Your task to perform on an android device: read, delete, or share a saved page in the chrome app Image 0: 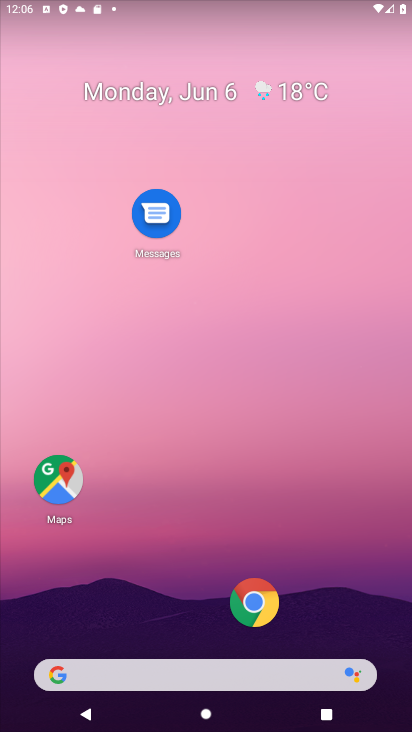
Step 0: click (260, 608)
Your task to perform on an android device: read, delete, or share a saved page in the chrome app Image 1: 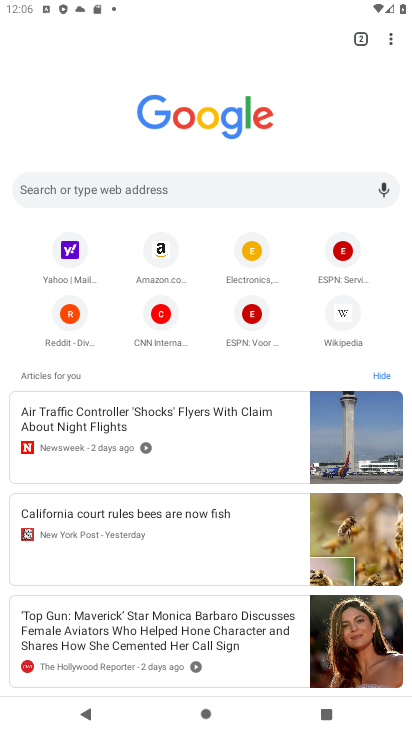
Step 1: click (384, 40)
Your task to perform on an android device: read, delete, or share a saved page in the chrome app Image 2: 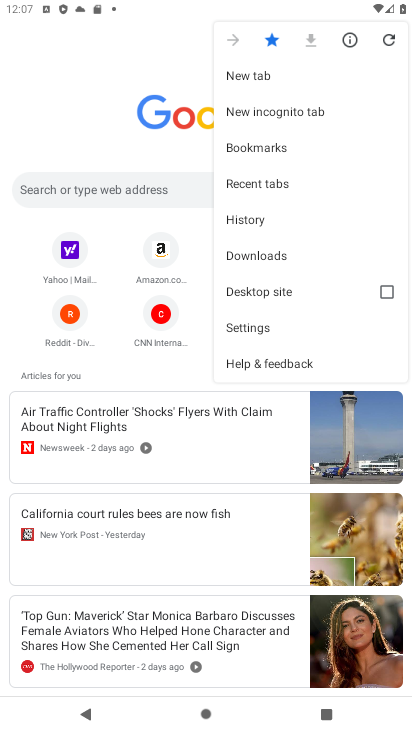
Step 2: click (275, 191)
Your task to perform on an android device: read, delete, or share a saved page in the chrome app Image 3: 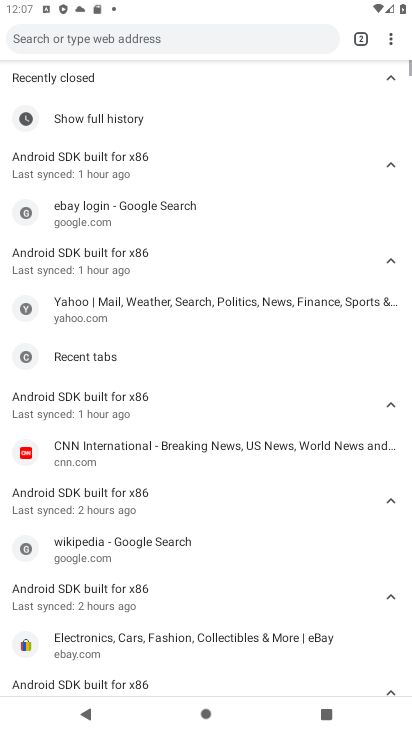
Step 3: task complete